Your task to perform on an android device: Open sound settings Image 0: 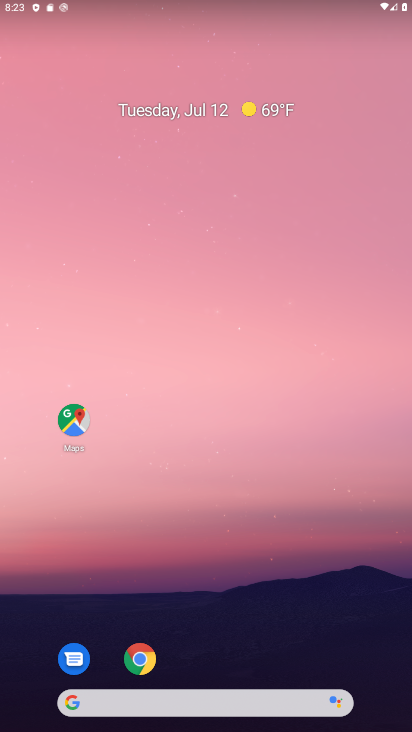
Step 0: drag from (213, 721) to (208, 148)
Your task to perform on an android device: Open sound settings Image 1: 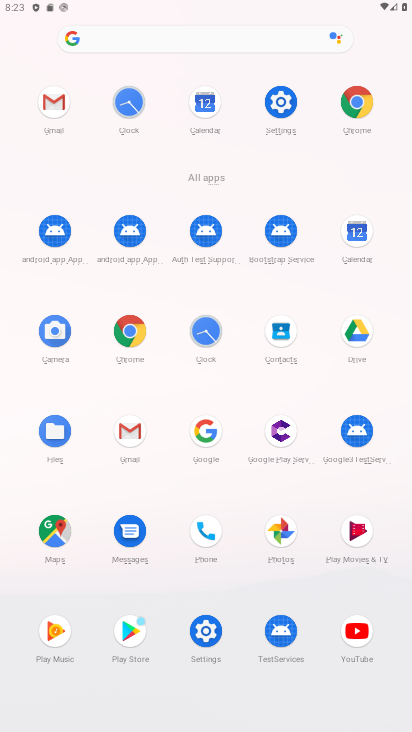
Step 1: click (280, 110)
Your task to perform on an android device: Open sound settings Image 2: 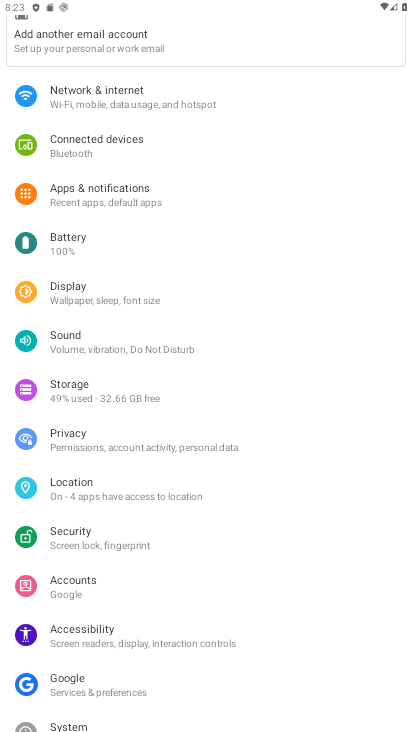
Step 2: click (59, 338)
Your task to perform on an android device: Open sound settings Image 3: 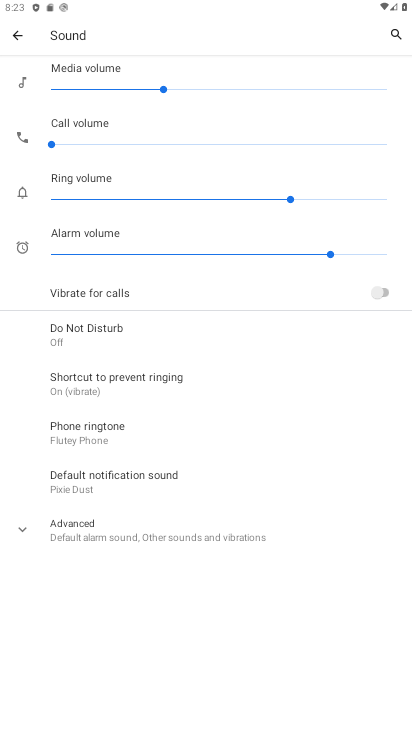
Step 3: task complete